Your task to perform on an android device: Set the phone to "Do not disturb". Image 0: 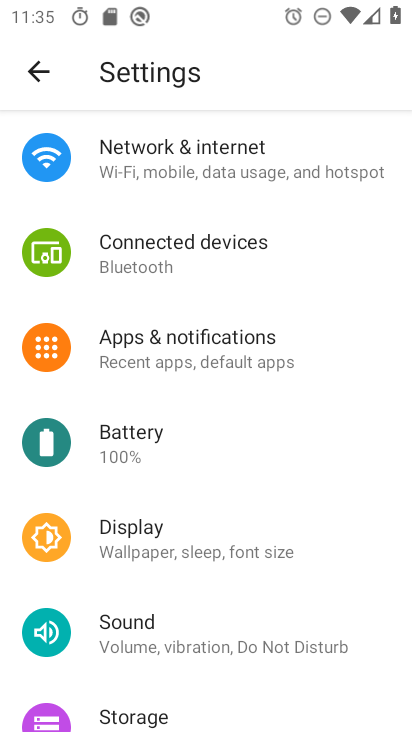
Step 0: click (136, 635)
Your task to perform on an android device: Set the phone to "Do not disturb". Image 1: 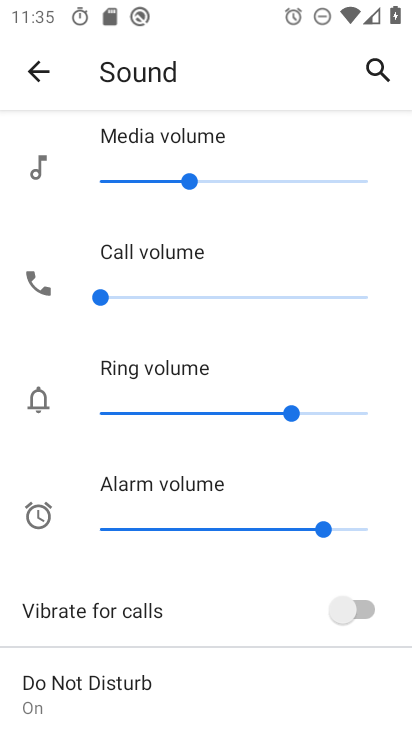
Step 1: drag from (194, 614) to (185, 312)
Your task to perform on an android device: Set the phone to "Do not disturb". Image 2: 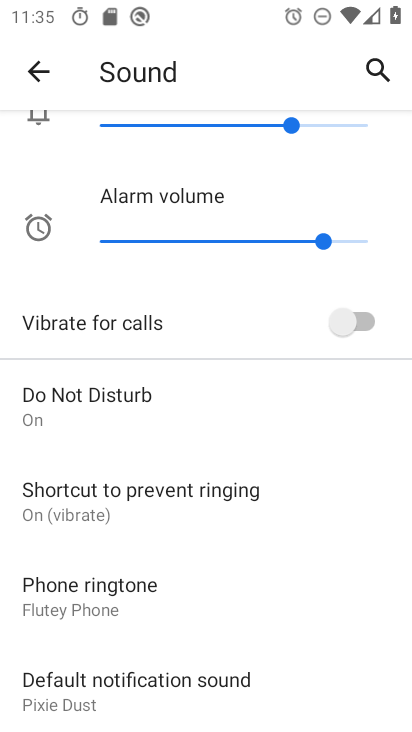
Step 2: click (51, 409)
Your task to perform on an android device: Set the phone to "Do not disturb". Image 3: 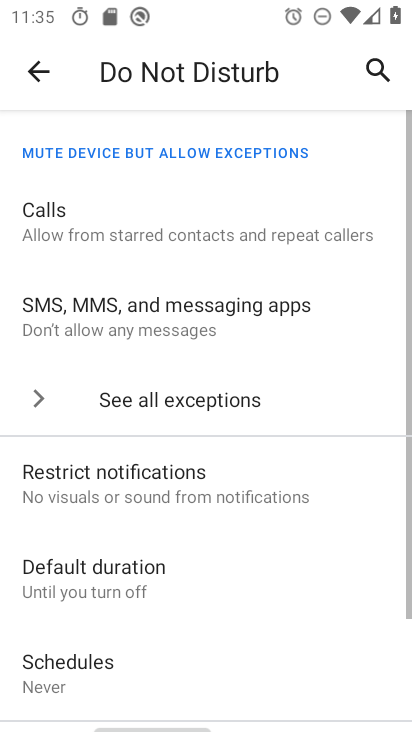
Step 3: task complete